Your task to perform on an android device: see sites visited before in the chrome app Image 0: 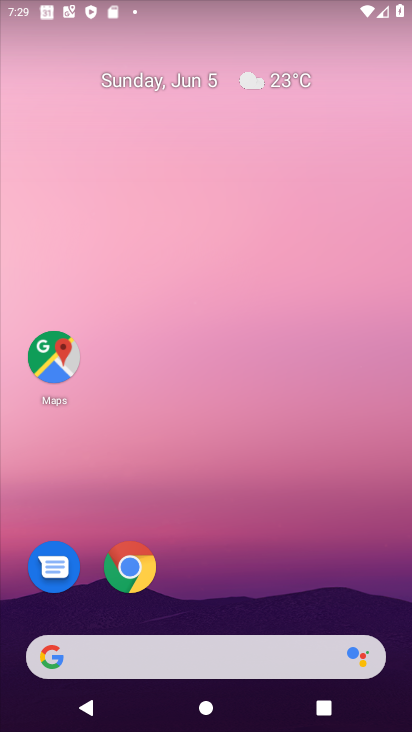
Step 0: drag from (402, 613) to (317, 1)
Your task to perform on an android device: see sites visited before in the chrome app Image 1: 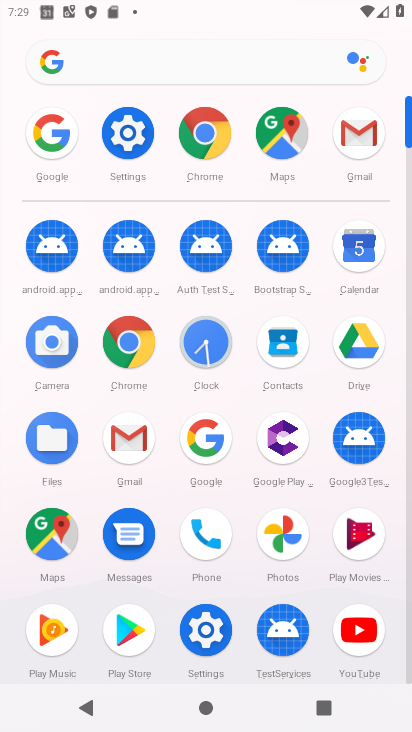
Step 1: click (235, 149)
Your task to perform on an android device: see sites visited before in the chrome app Image 2: 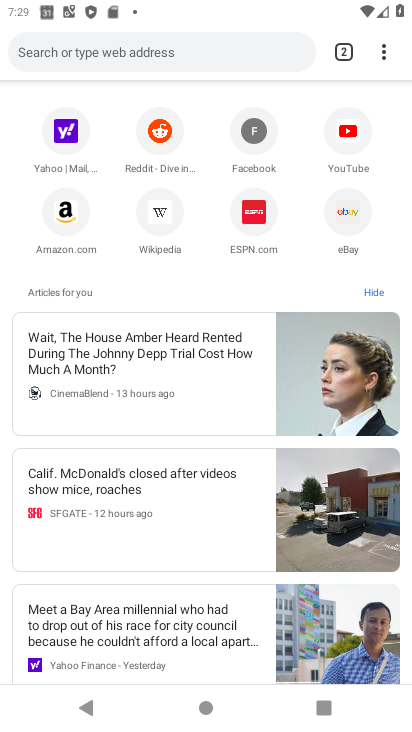
Step 2: click (383, 51)
Your task to perform on an android device: see sites visited before in the chrome app Image 3: 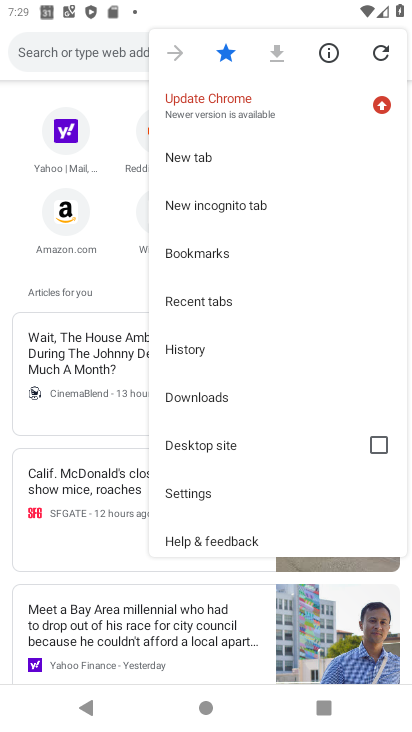
Step 3: click (194, 345)
Your task to perform on an android device: see sites visited before in the chrome app Image 4: 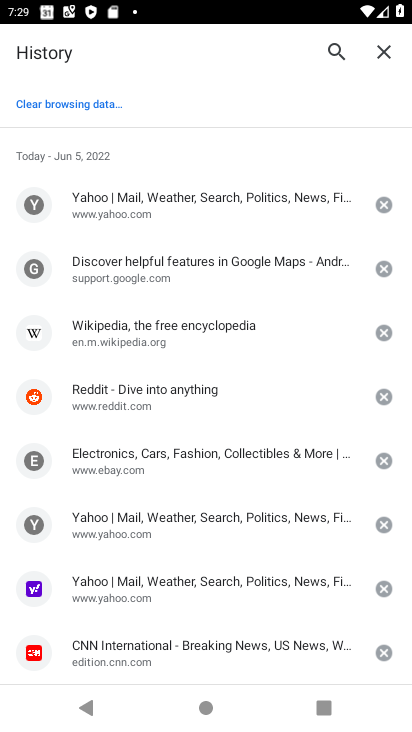
Step 4: click (142, 204)
Your task to perform on an android device: see sites visited before in the chrome app Image 5: 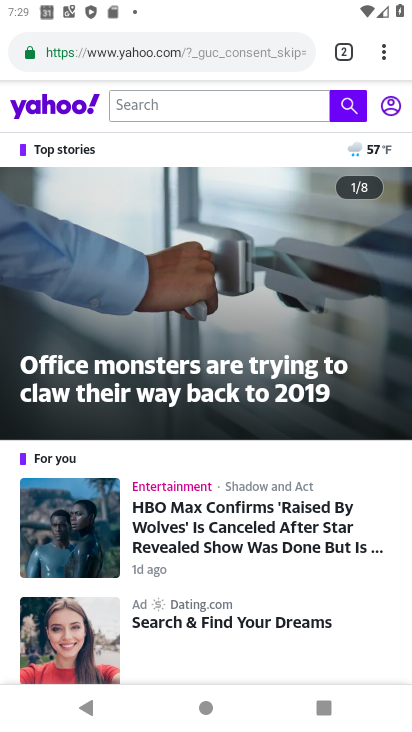
Step 5: task complete